Your task to perform on an android device: Do I have any events tomorrow? Image 0: 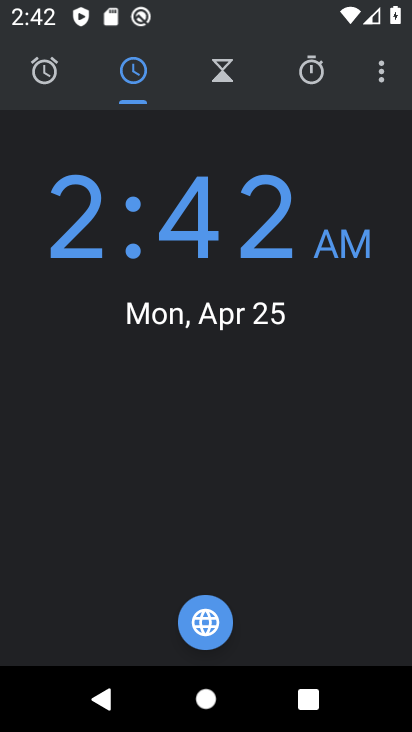
Step 0: press home button
Your task to perform on an android device: Do I have any events tomorrow? Image 1: 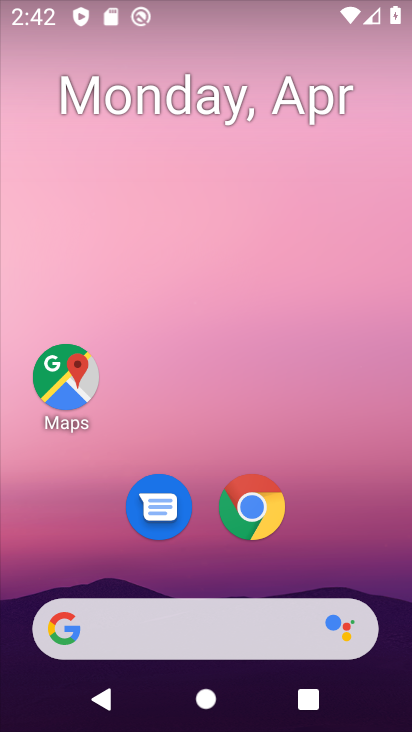
Step 1: drag from (366, 524) to (290, 188)
Your task to perform on an android device: Do I have any events tomorrow? Image 2: 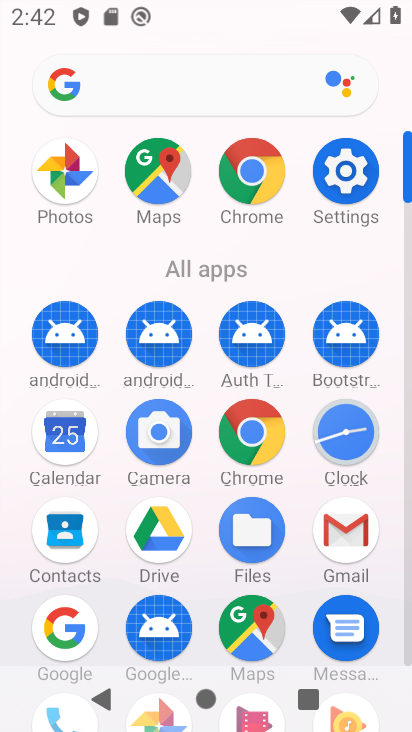
Step 2: click (56, 437)
Your task to perform on an android device: Do I have any events tomorrow? Image 3: 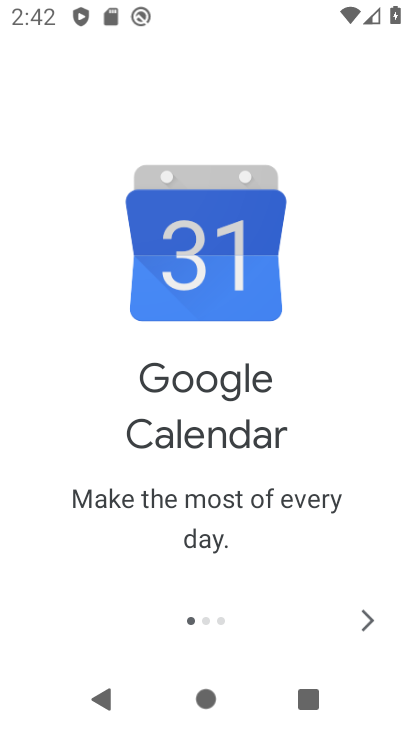
Step 3: click (372, 634)
Your task to perform on an android device: Do I have any events tomorrow? Image 4: 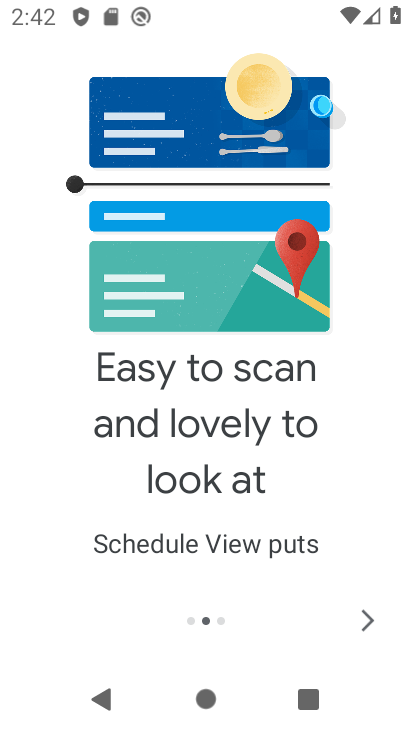
Step 4: click (372, 634)
Your task to perform on an android device: Do I have any events tomorrow? Image 5: 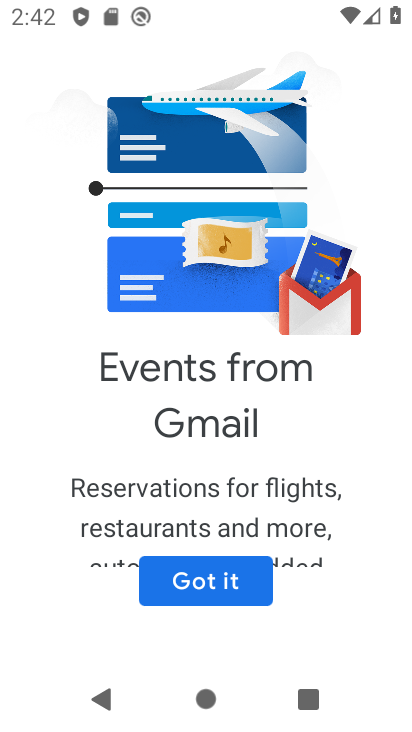
Step 5: click (195, 573)
Your task to perform on an android device: Do I have any events tomorrow? Image 6: 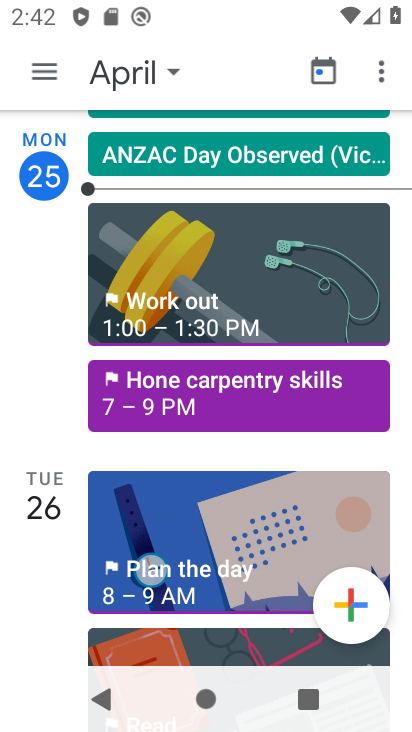
Step 6: click (44, 63)
Your task to perform on an android device: Do I have any events tomorrow? Image 7: 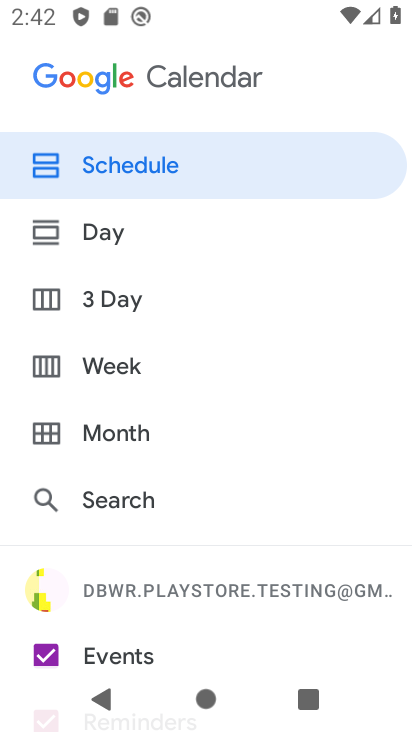
Step 7: drag from (175, 549) to (207, 296)
Your task to perform on an android device: Do I have any events tomorrow? Image 8: 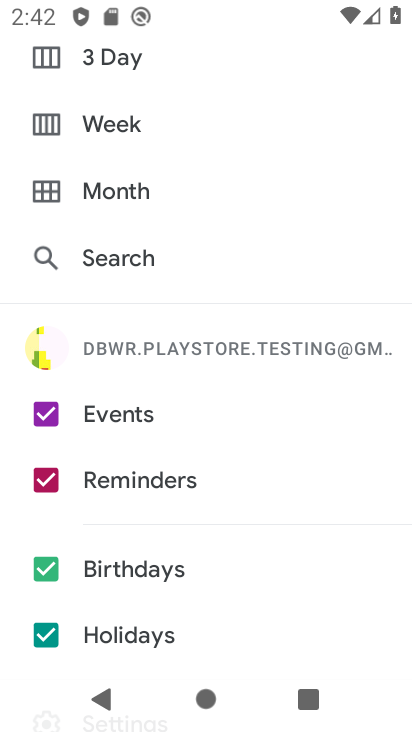
Step 8: click (41, 631)
Your task to perform on an android device: Do I have any events tomorrow? Image 9: 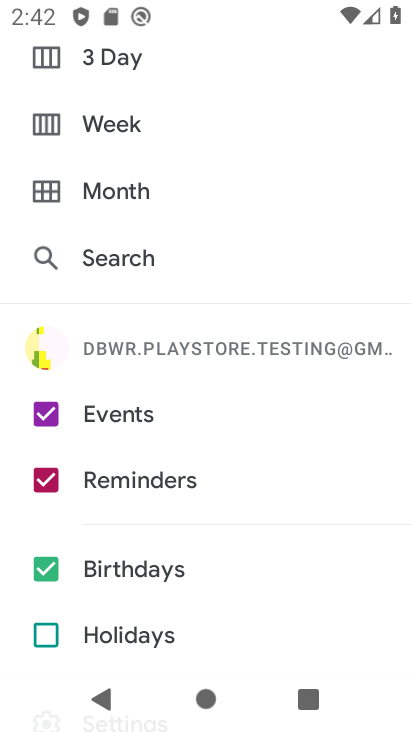
Step 9: click (43, 578)
Your task to perform on an android device: Do I have any events tomorrow? Image 10: 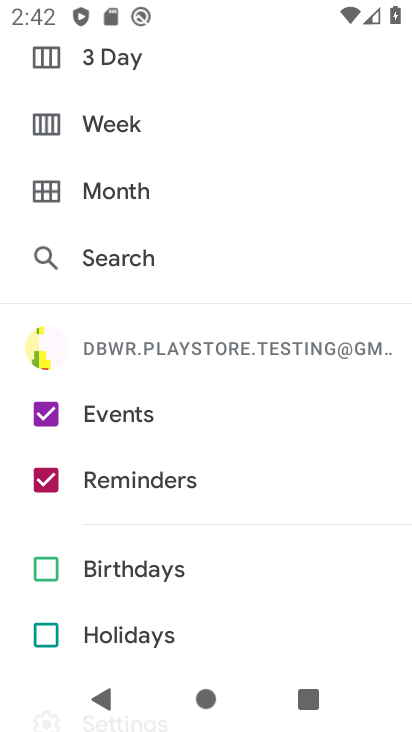
Step 10: click (50, 474)
Your task to perform on an android device: Do I have any events tomorrow? Image 11: 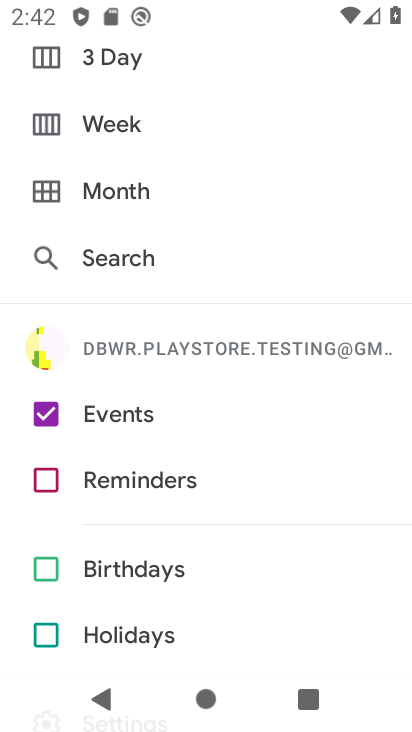
Step 11: drag from (214, 118) to (207, 552)
Your task to perform on an android device: Do I have any events tomorrow? Image 12: 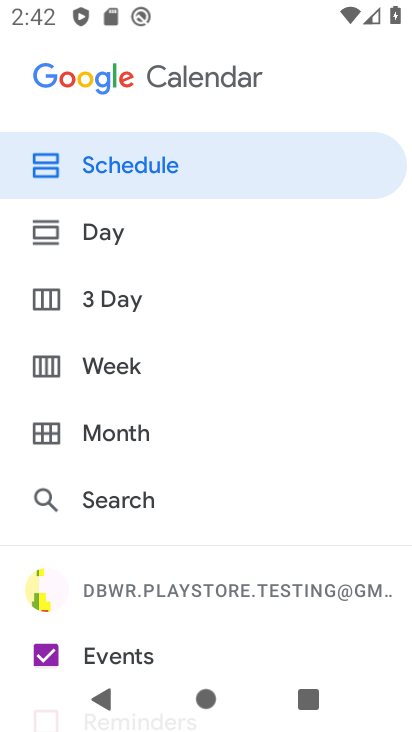
Step 12: click (180, 238)
Your task to perform on an android device: Do I have any events tomorrow? Image 13: 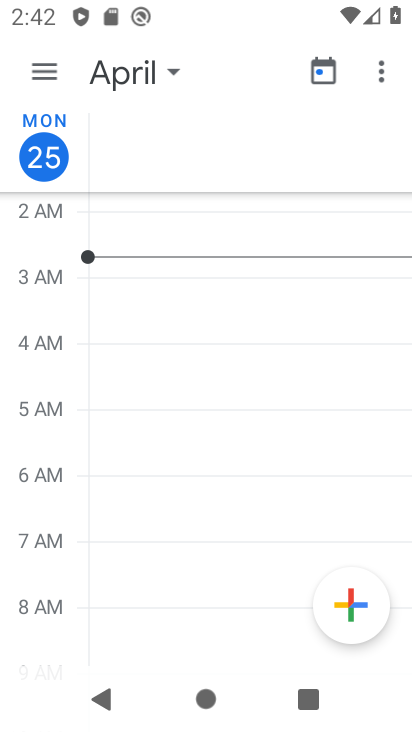
Step 13: click (170, 63)
Your task to perform on an android device: Do I have any events tomorrow? Image 14: 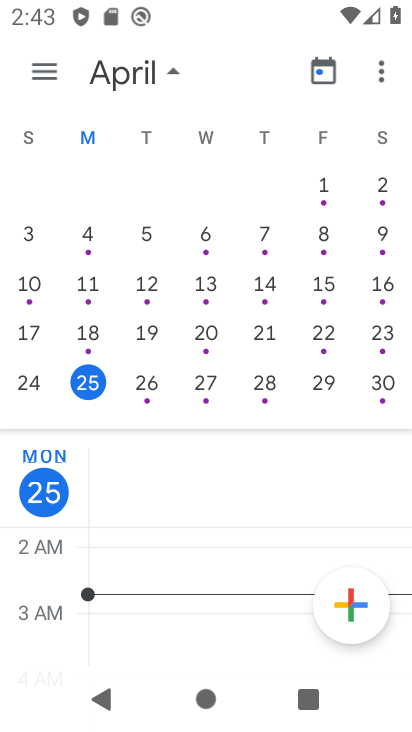
Step 14: click (154, 384)
Your task to perform on an android device: Do I have any events tomorrow? Image 15: 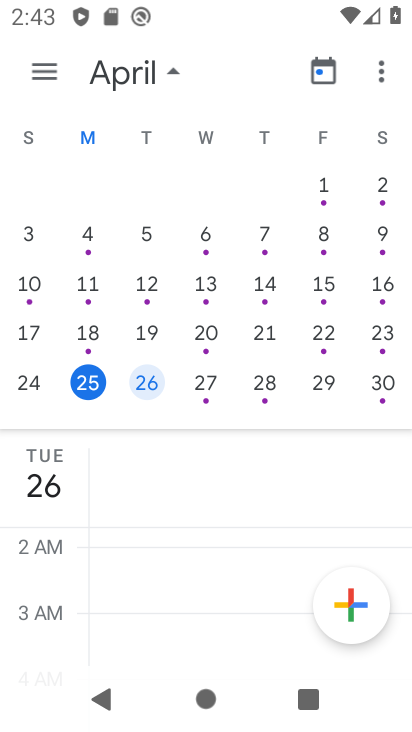
Step 15: click (154, 384)
Your task to perform on an android device: Do I have any events tomorrow? Image 16: 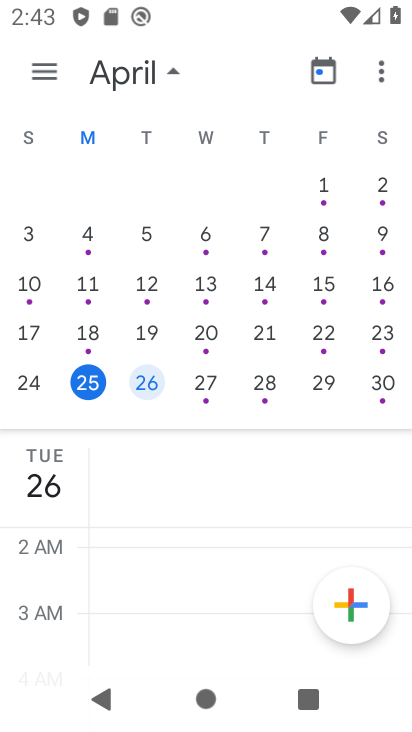
Step 16: click (174, 71)
Your task to perform on an android device: Do I have any events tomorrow? Image 17: 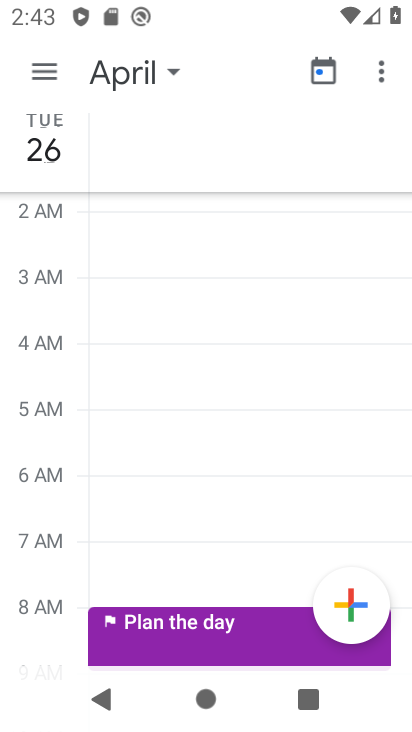
Step 17: task complete